Your task to perform on an android device: turn off translation in the chrome app Image 0: 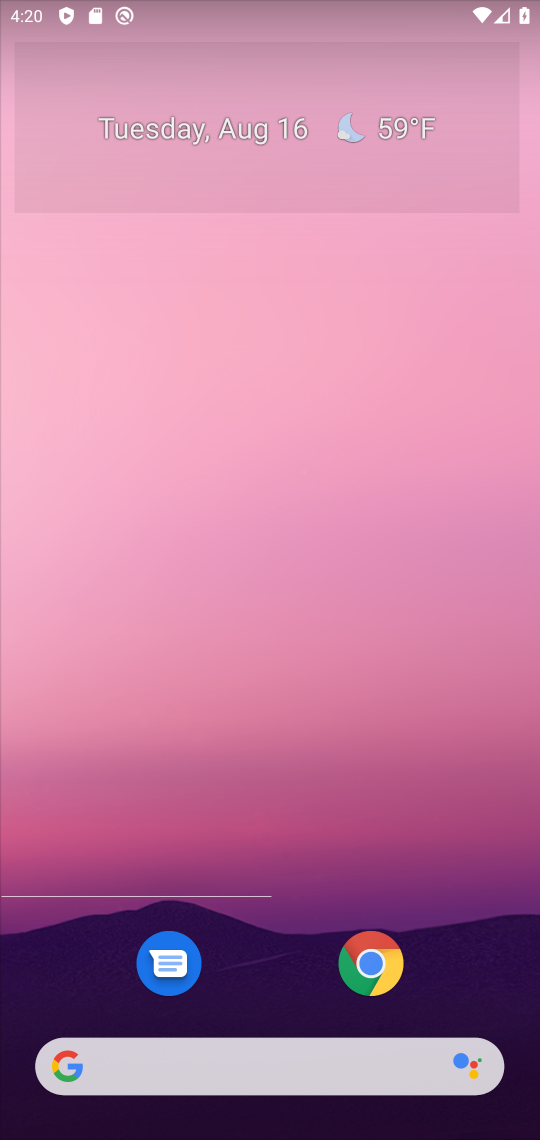
Step 0: press home button
Your task to perform on an android device: turn off translation in the chrome app Image 1: 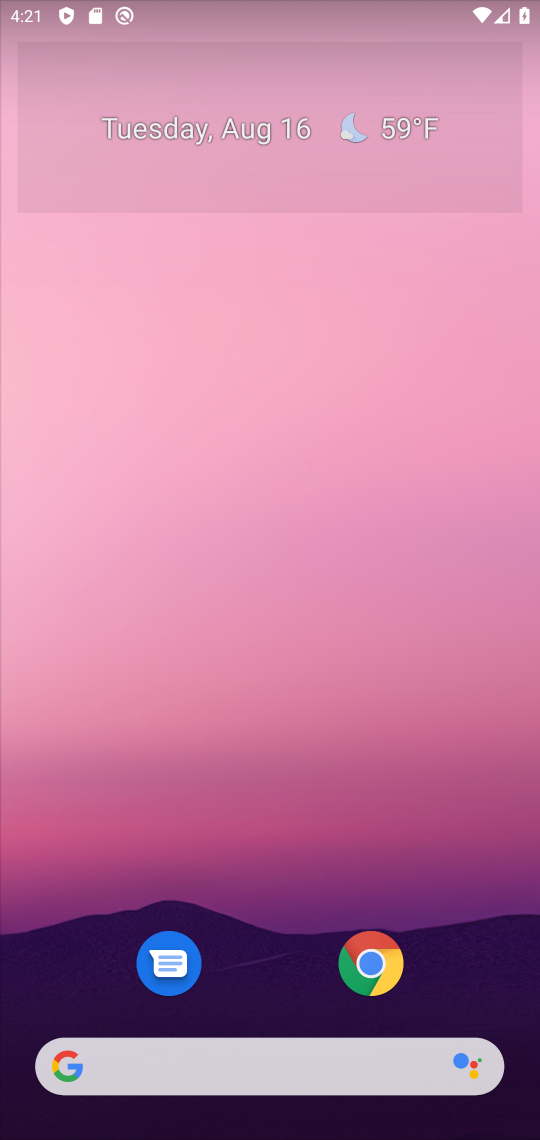
Step 1: drag from (271, 989) to (338, 32)
Your task to perform on an android device: turn off translation in the chrome app Image 2: 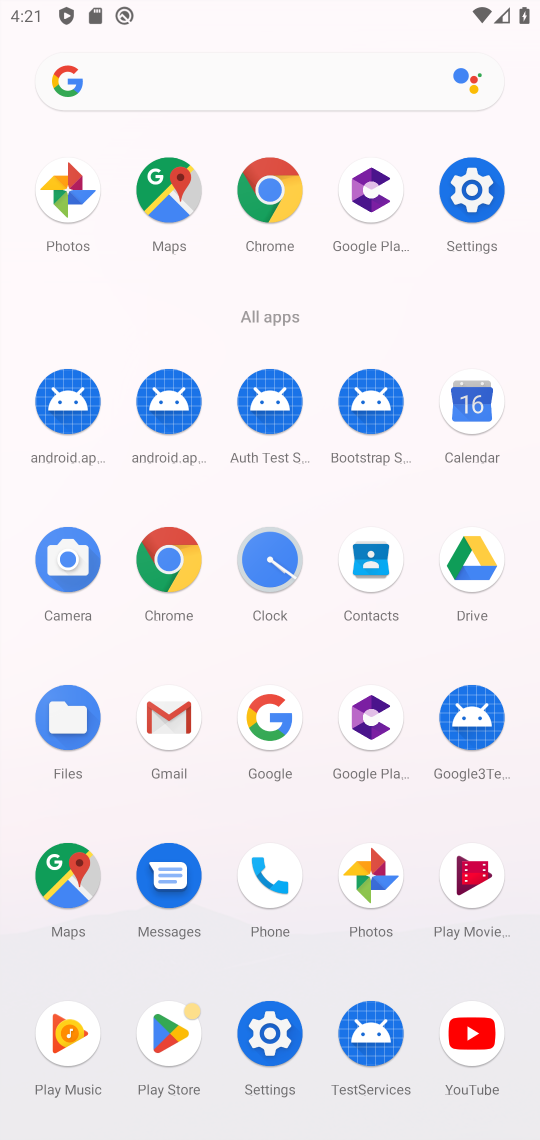
Step 2: click (456, 179)
Your task to perform on an android device: turn off translation in the chrome app Image 3: 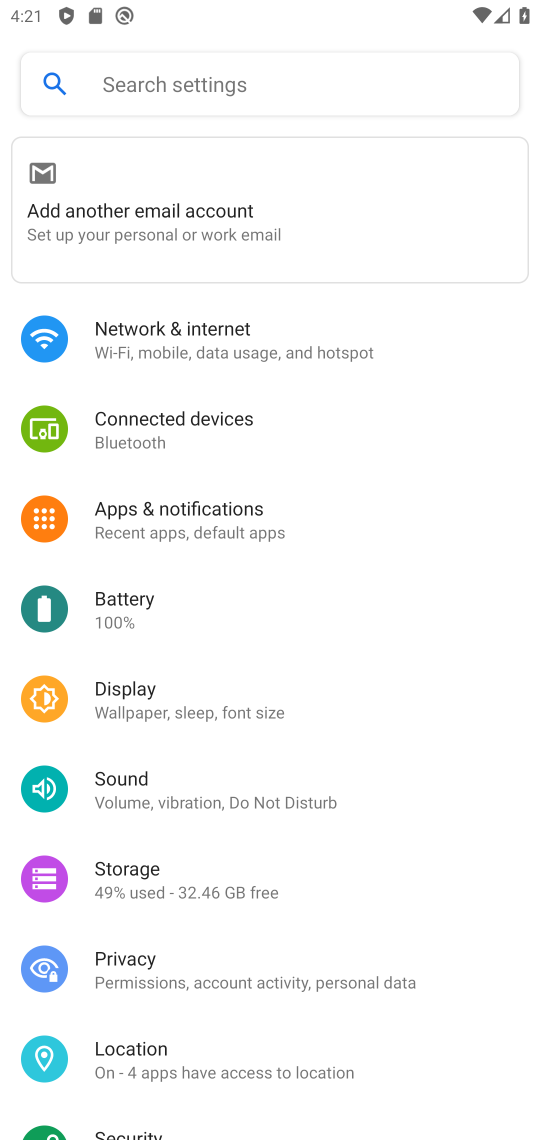
Step 3: drag from (183, 1008) to (218, 173)
Your task to perform on an android device: turn off translation in the chrome app Image 4: 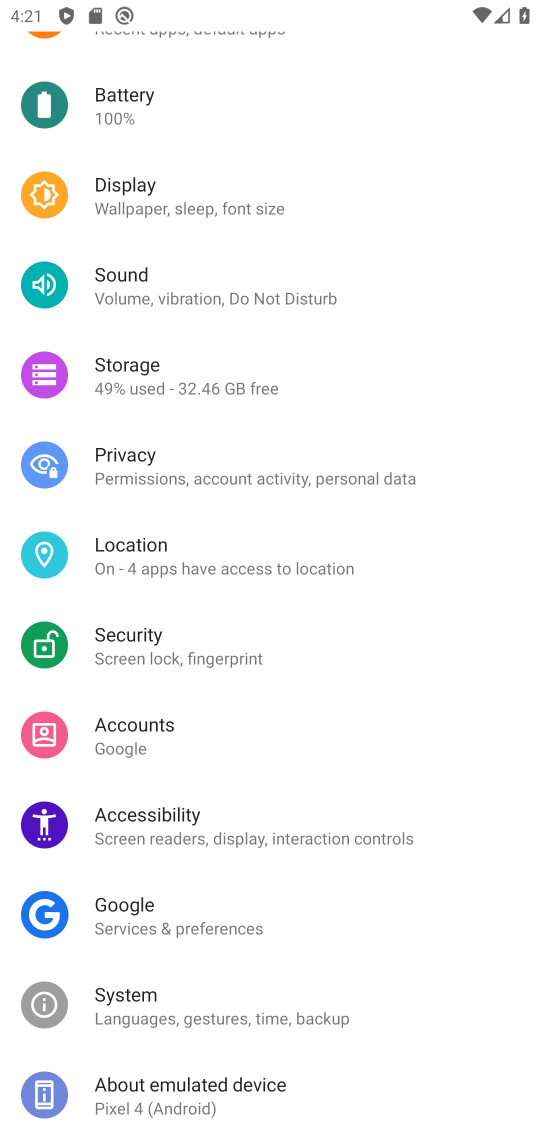
Step 4: drag from (146, 1042) to (206, 583)
Your task to perform on an android device: turn off translation in the chrome app Image 5: 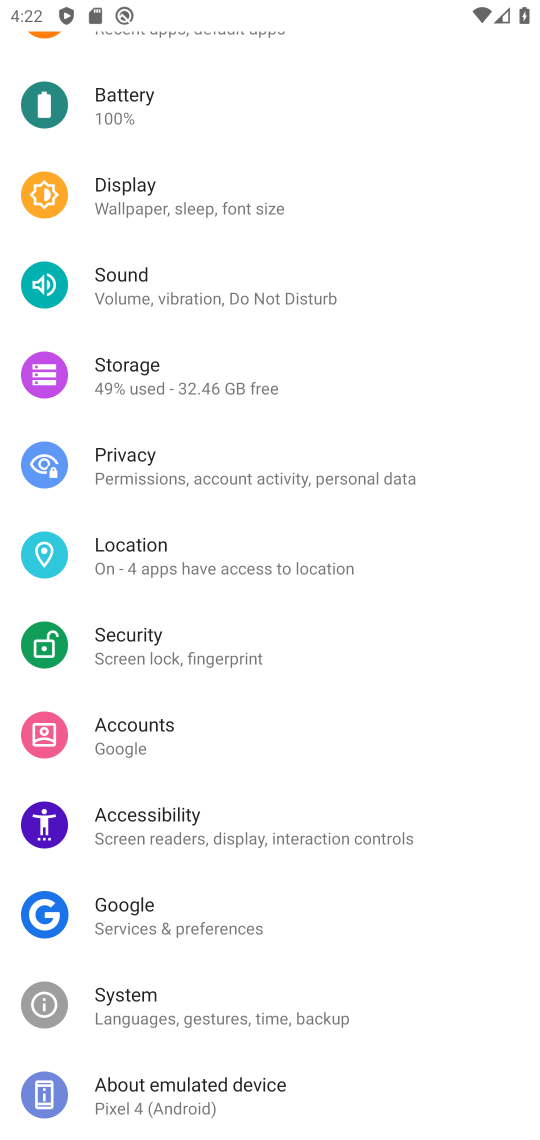
Step 5: press home button
Your task to perform on an android device: turn off translation in the chrome app Image 6: 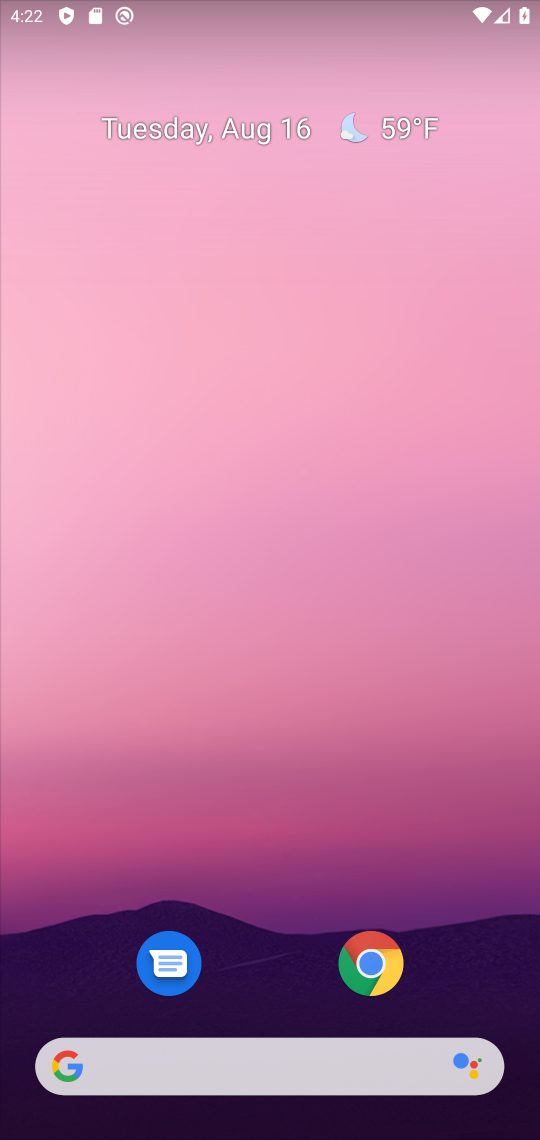
Step 6: click (376, 951)
Your task to perform on an android device: turn off translation in the chrome app Image 7: 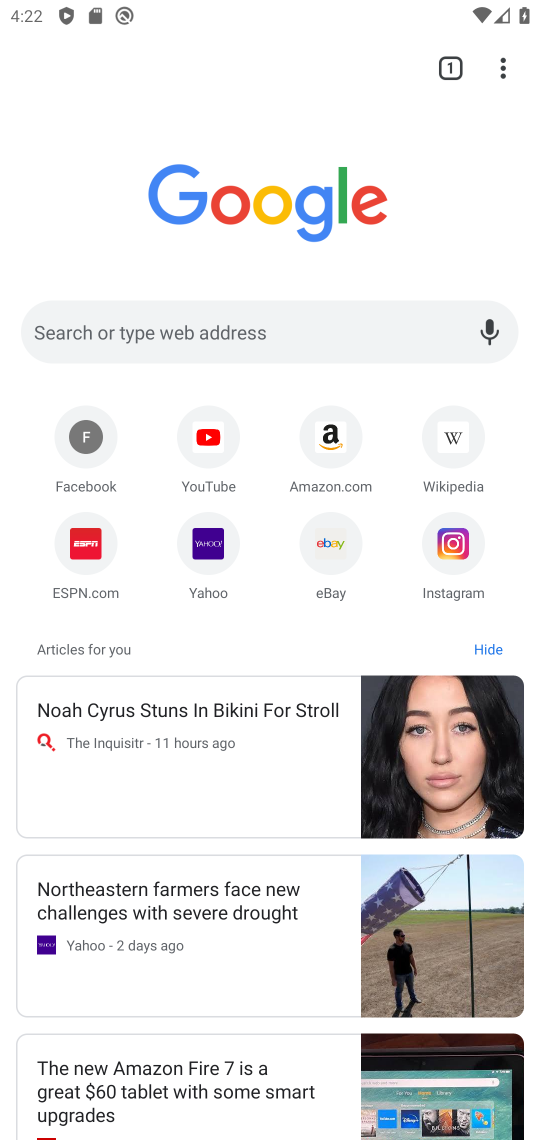
Step 7: click (496, 69)
Your task to perform on an android device: turn off translation in the chrome app Image 8: 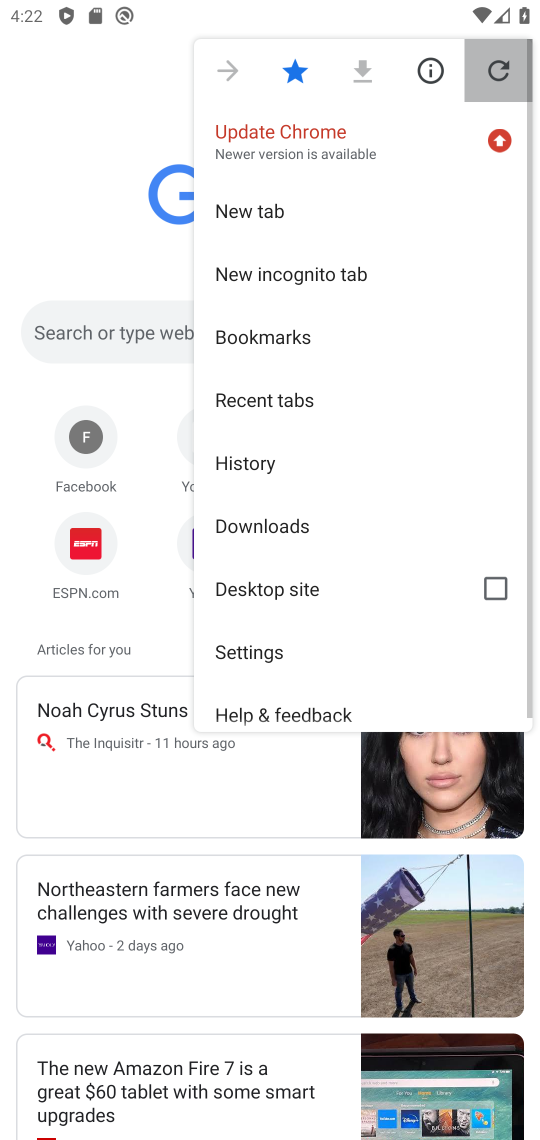
Step 8: drag from (496, 69) to (248, 631)
Your task to perform on an android device: turn off translation in the chrome app Image 9: 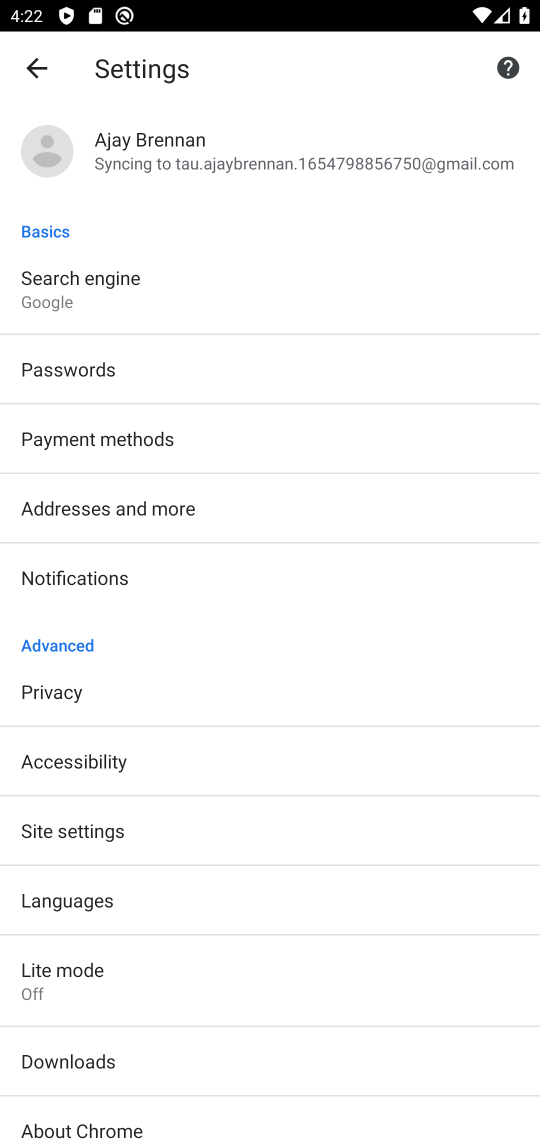
Step 9: click (156, 902)
Your task to perform on an android device: turn off translation in the chrome app Image 10: 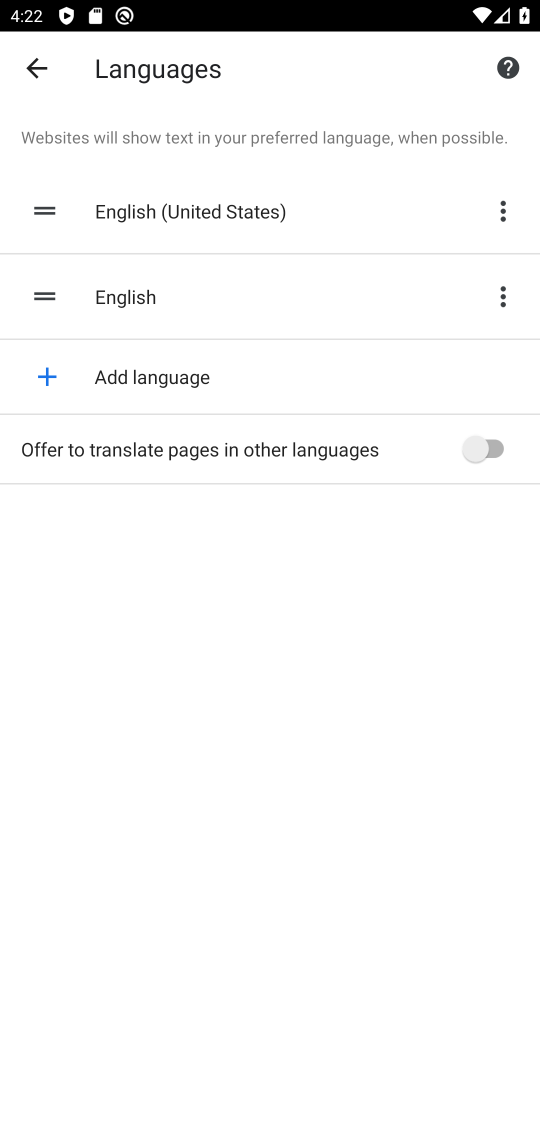
Step 10: task complete